Your task to perform on an android device: turn on wifi Image 0: 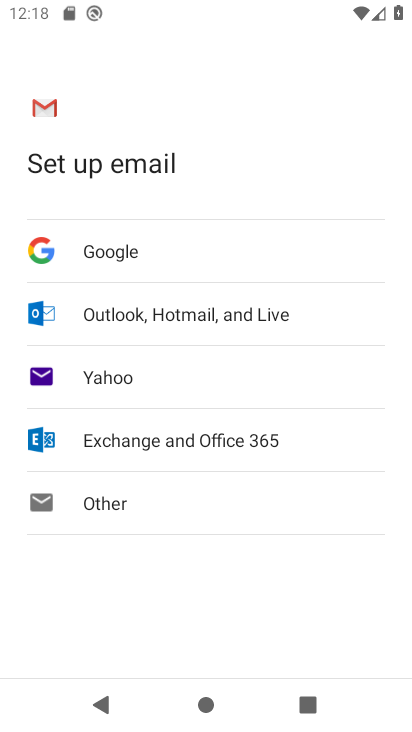
Step 0: press home button
Your task to perform on an android device: turn on wifi Image 1: 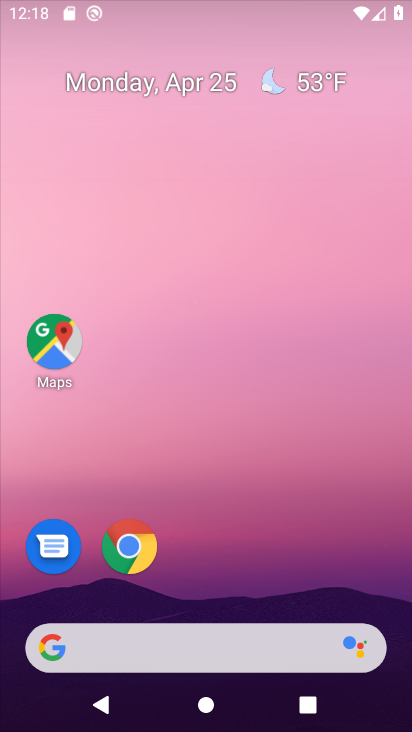
Step 1: task complete